Your task to perform on an android device: Go to settings Image 0: 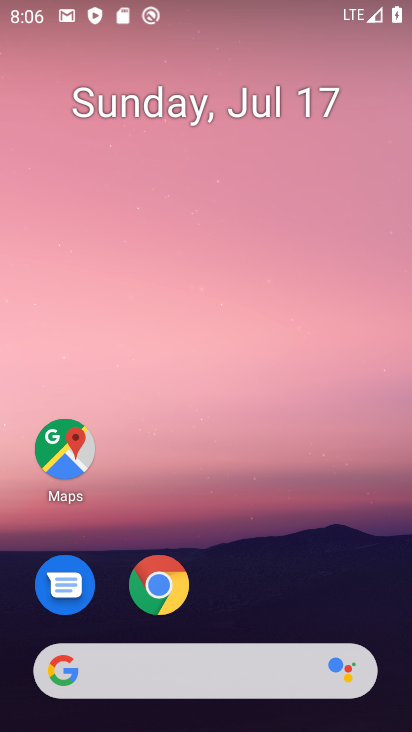
Step 0: drag from (202, 668) to (287, 149)
Your task to perform on an android device: Go to settings Image 1: 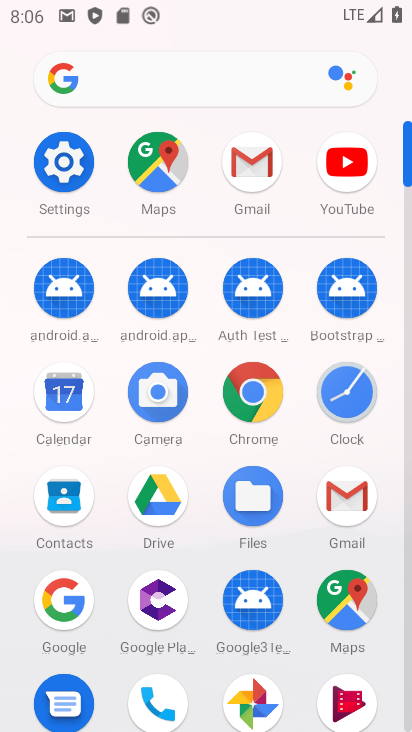
Step 1: click (61, 167)
Your task to perform on an android device: Go to settings Image 2: 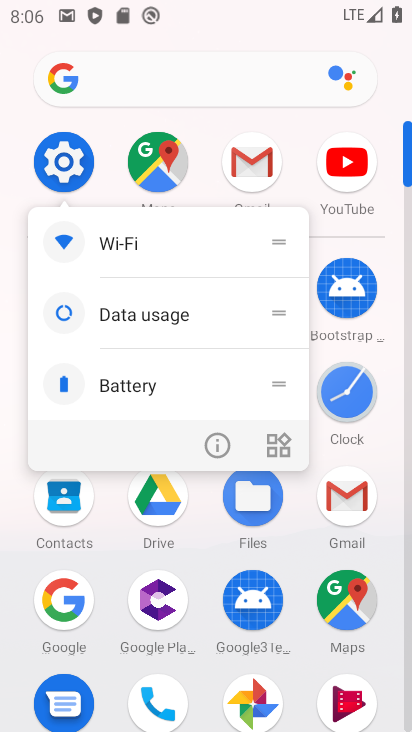
Step 2: click (61, 167)
Your task to perform on an android device: Go to settings Image 3: 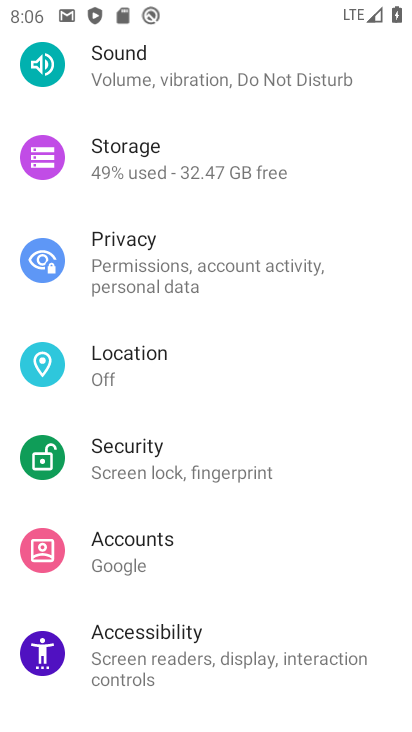
Step 3: task complete